Your task to perform on an android device: turn on the 24-hour format for clock Image 0: 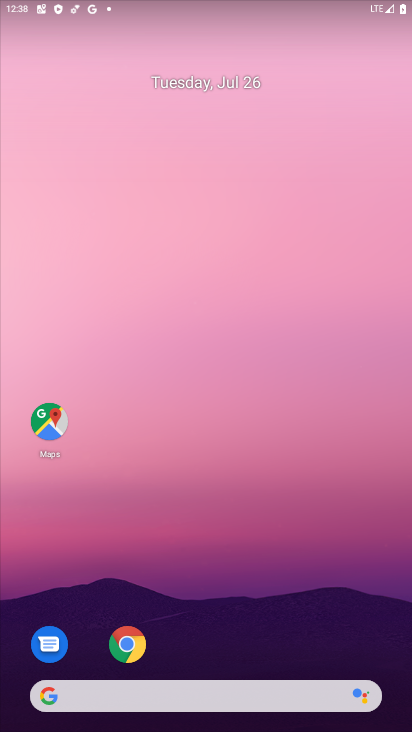
Step 0: drag from (324, 558) to (331, 0)
Your task to perform on an android device: turn on the 24-hour format for clock Image 1: 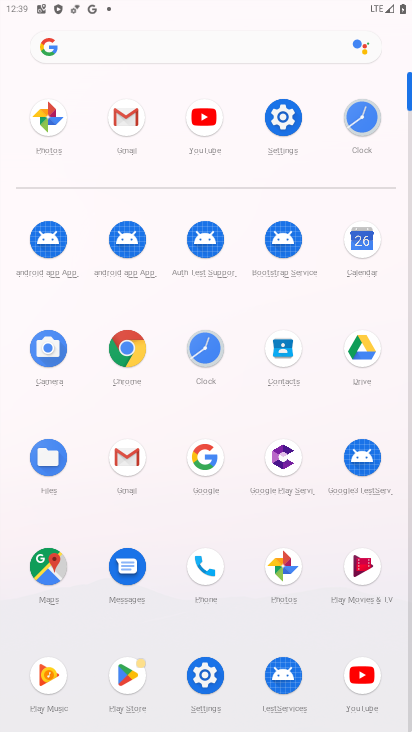
Step 1: click (360, 132)
Your task to perform on an android device: turn on the 24-hour format for clock Image 2: 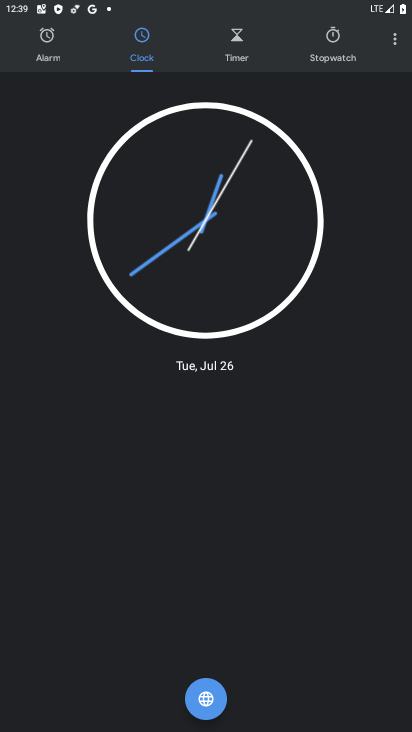
Step 2: click (397, 40)
Your task to perform on an android device: turn on the 24-hour format for clock Image 3: 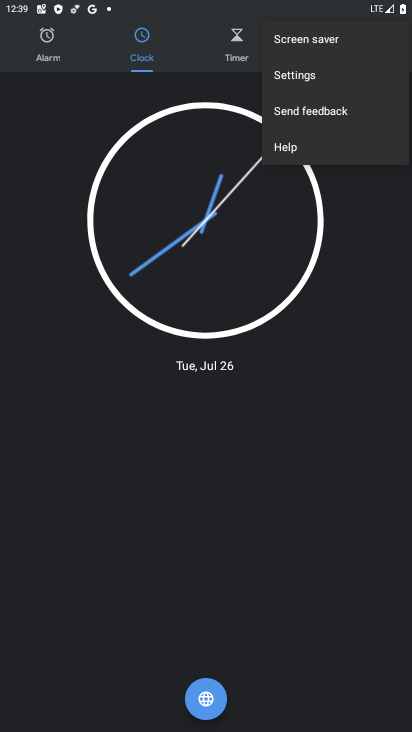
Step 3: click (295, 81)
Your task to perform on an android device: turn on the 24-hour format for clock Image 4: 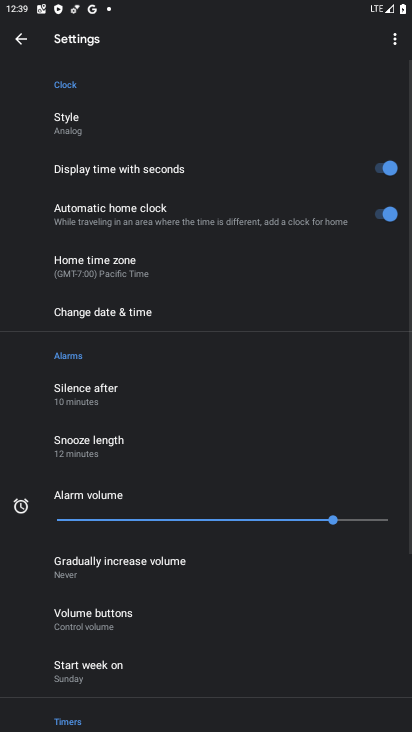
Step 4: click (139, 318)
Your task to perform on an android device: turn on the 24-hour format for clock Image 5: 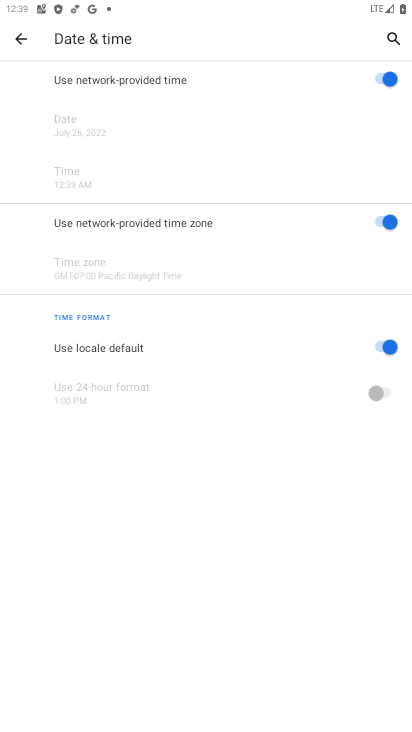
Step 5: click (383, 346)
Your task to perform on an android device: turn on the 24-hour format for clock Image 6: 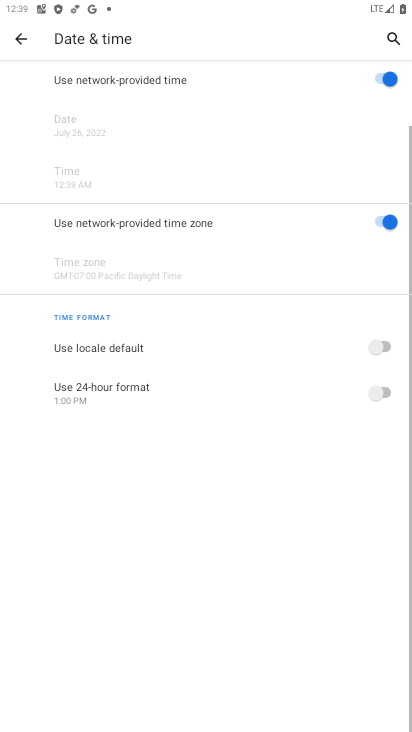
Step 6: click (376, 387)
Your task to perform on an android device: turn on the 24-hour format for clock Image 7: 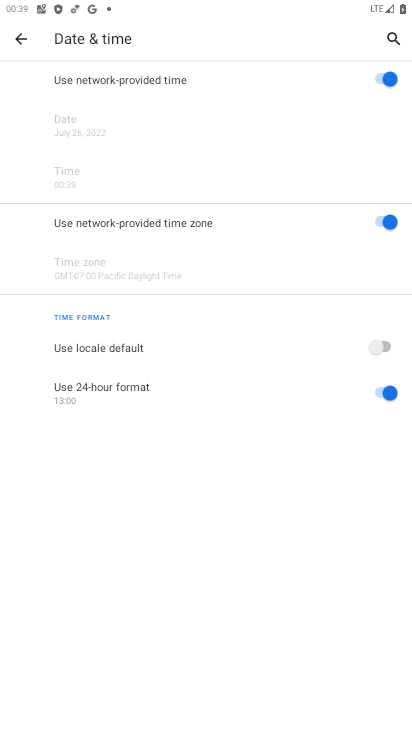
Step 7: task complete